Your task to perform on an android device: Open accessibility settings Image 0: 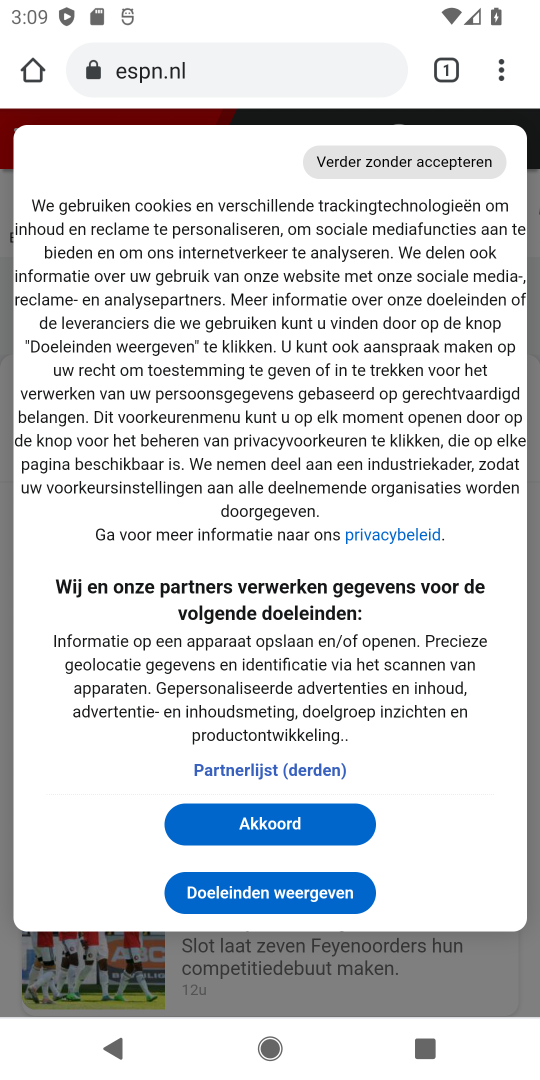
Step 0: press home button
Your task to perform on an android device: Open accessibility settings Image 1: 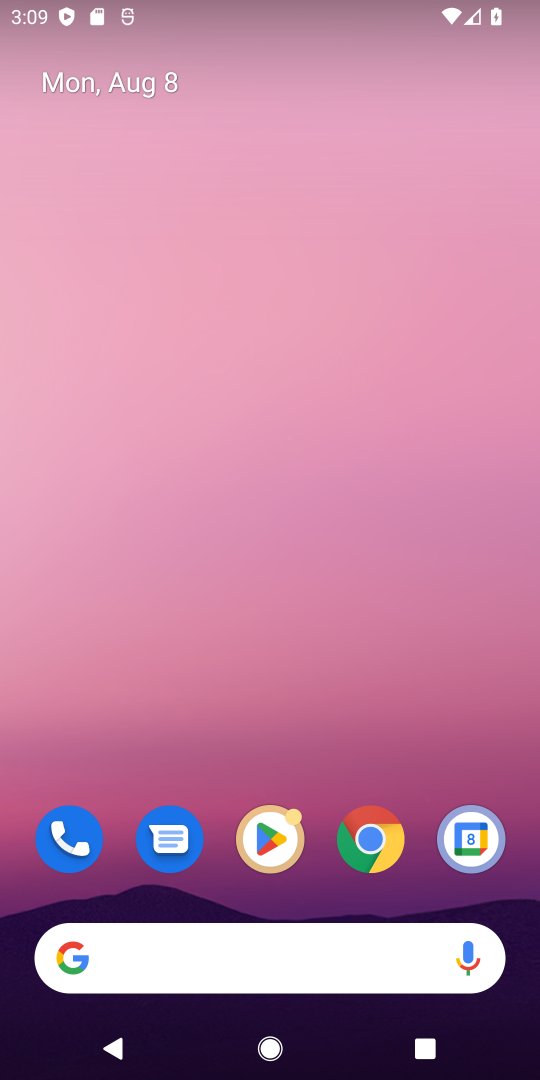
Step 1: drag from (294, 891) to (353, 1034)
Your task to perform on an android device: Open accessibility settings Image 2: 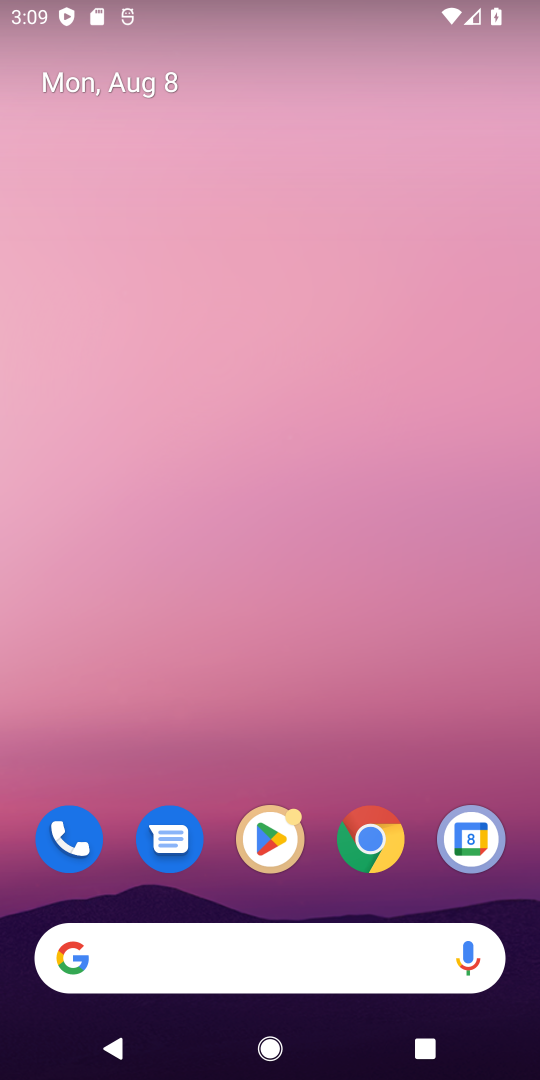
Step 2: drag from (272, 931) to (226, 109)
Your task to perform on an android device: Open accessibility settings Image 3: 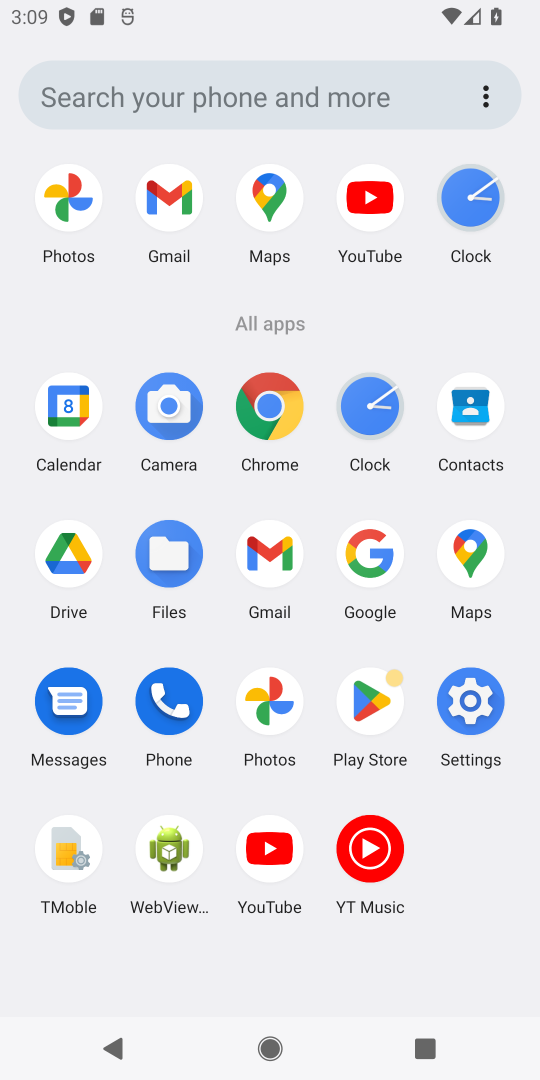
Step 3: click (487, 712)
Your task to perform on an android device: Open accessibility settings Image 4: 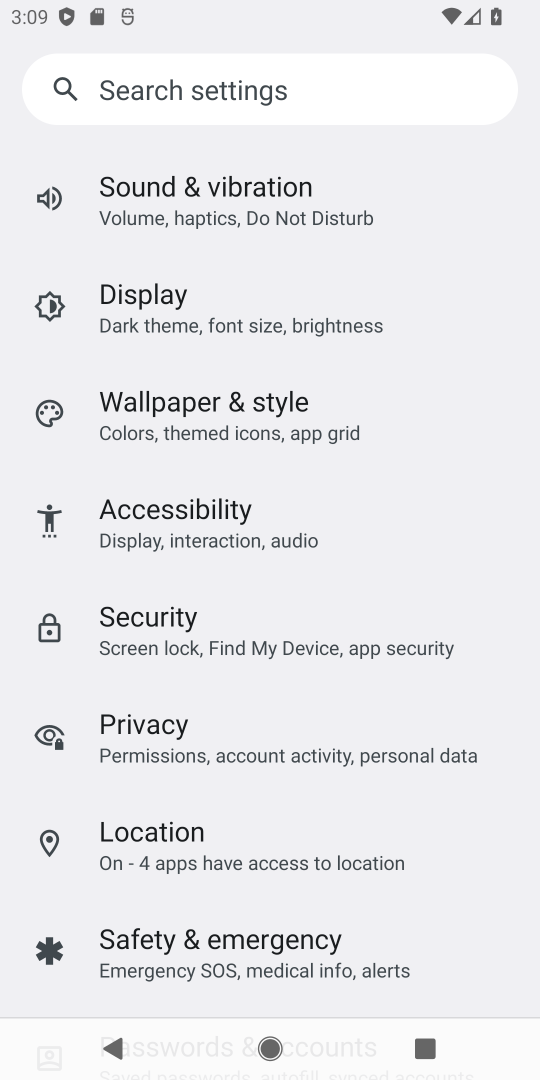
Step 4: click (137, 508)
Your task to perform on an android device: Open accessibility settings Image 5: 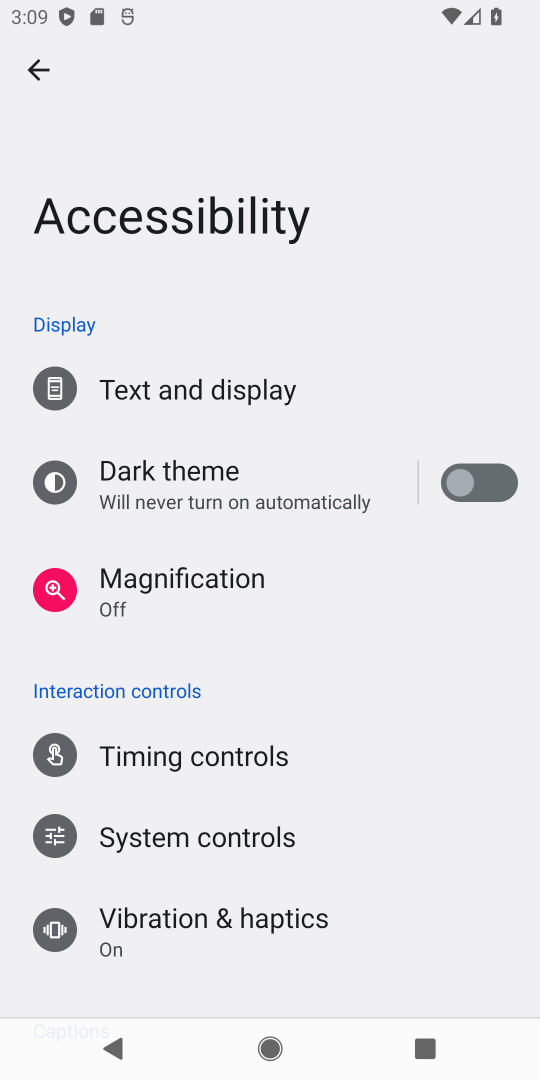
Step 5: task complete